Your task to perform on an android device: uninstall "Spotify: Music and Podcasts" Image 0: 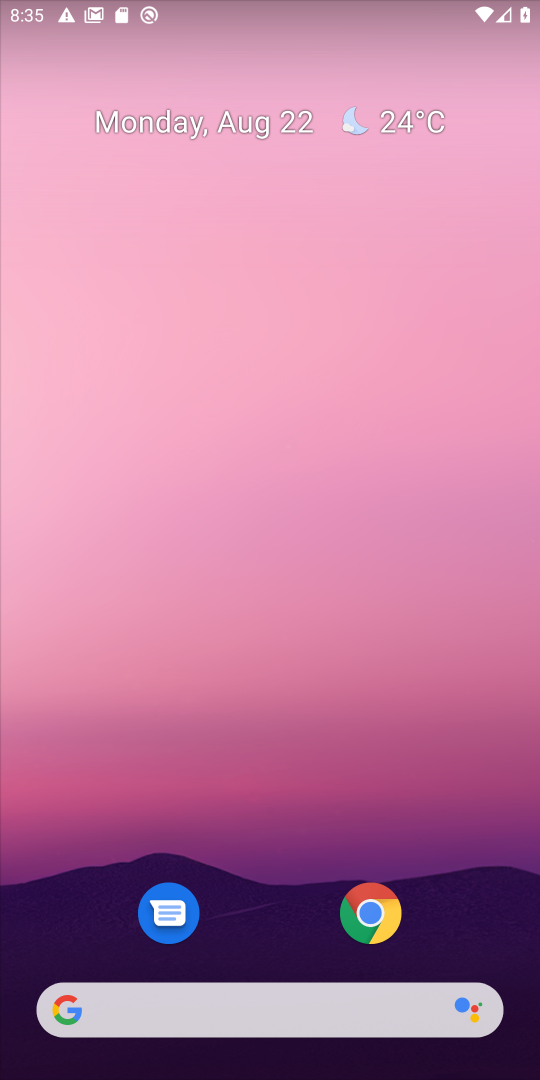
Step 0: click (372, 432)
Your task to perform on an android device: uninstall "Spotify: Music and Podcasts" Image 1: 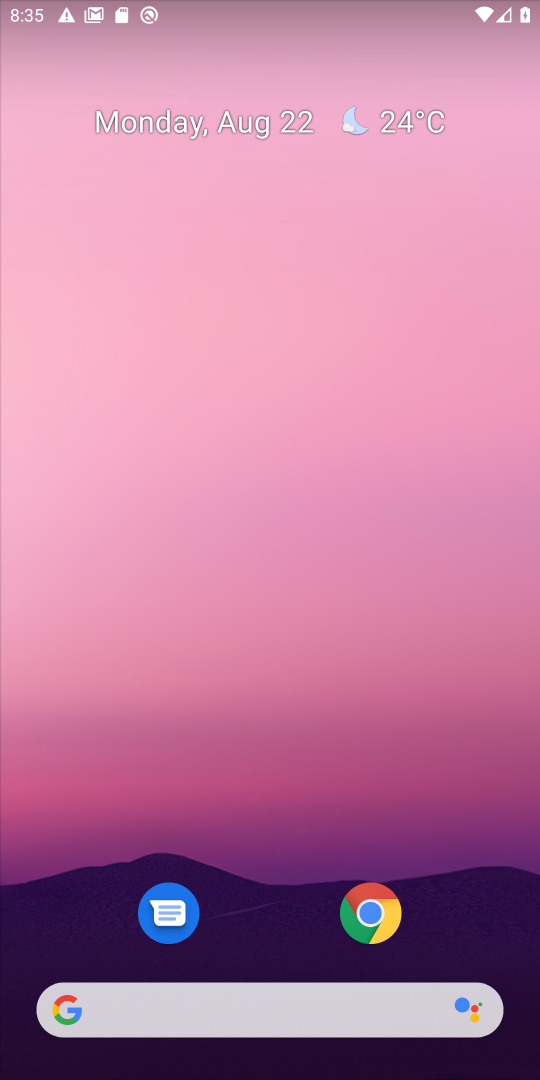
Step 1: drag from (297, 975) to (256, 115)
Your task to perform on an android device: uninstall "Spotify: Music and Podcasts" Image 2: 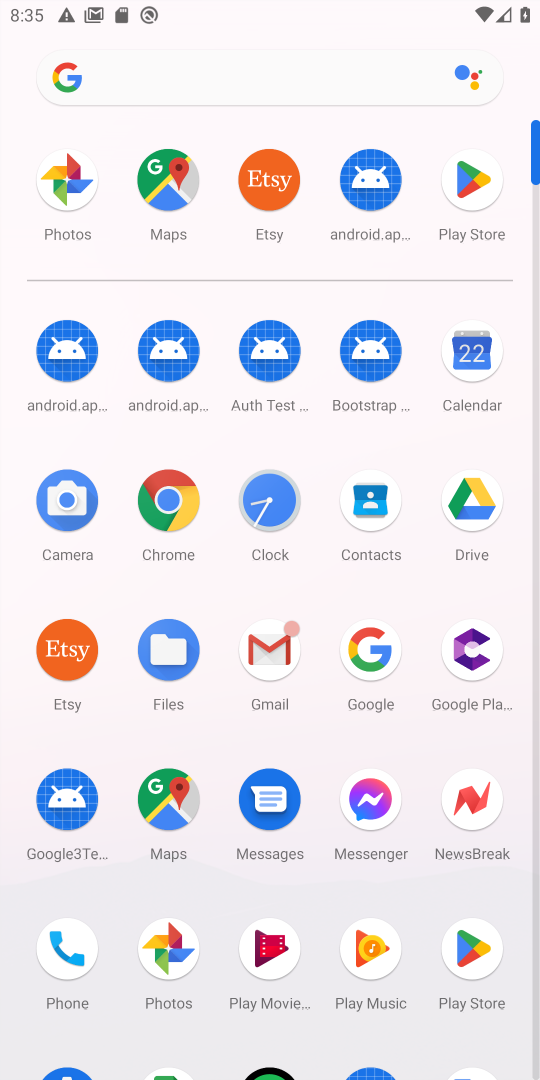
Step 2: click (452, 208)
Your task to perform on an android device: uninstall "Spotify: Music and Podcasts" Image 3: 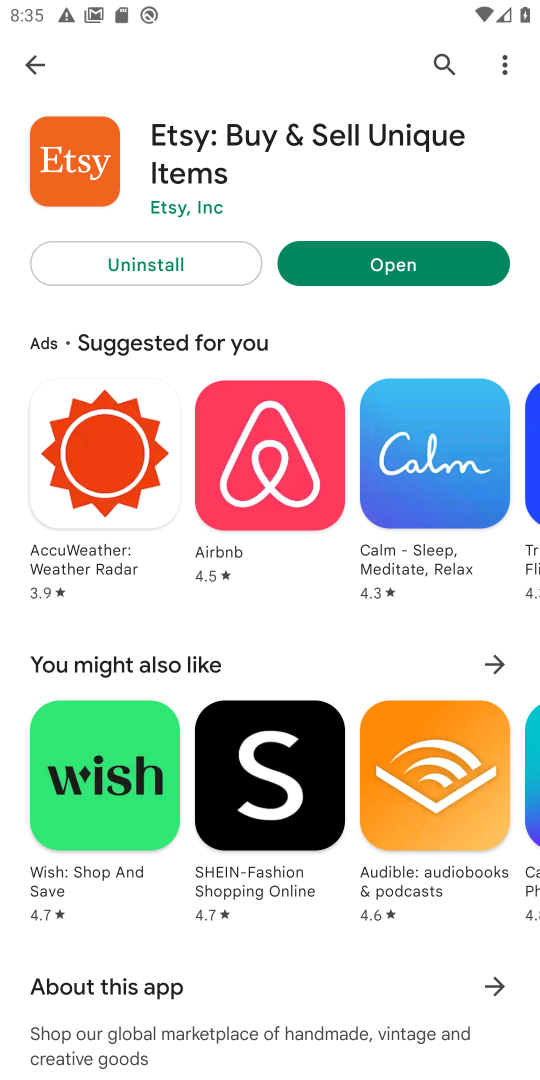
Step 3: click (442, 66)
Your task to perform on an android device: uninstall "Spotify: Music and Podcasts" Image 4: 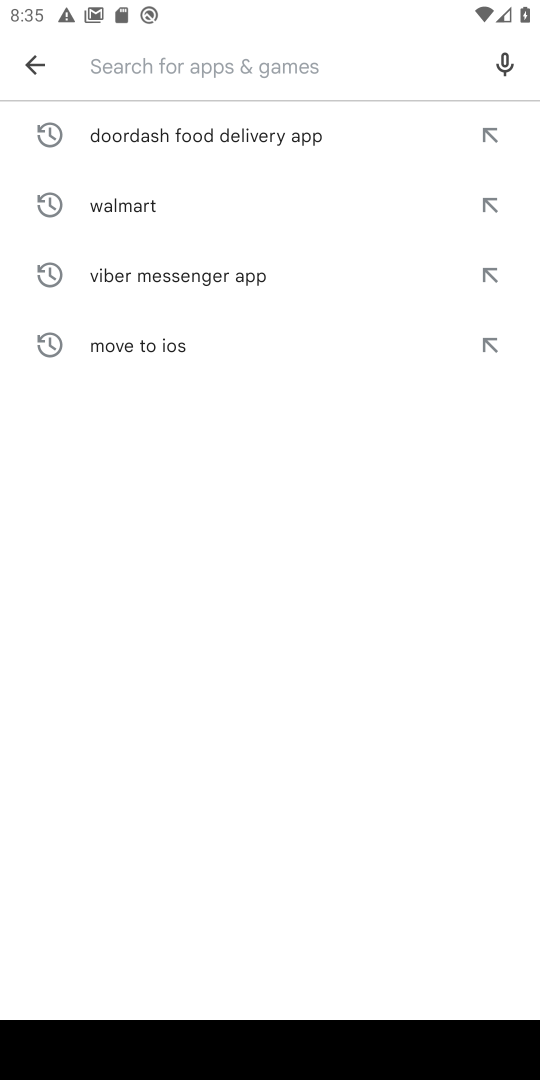
Step 4: type "spotify"
Your task to perform on an android device: uninstall "Spotify: Music and Podcasts" Image 5: 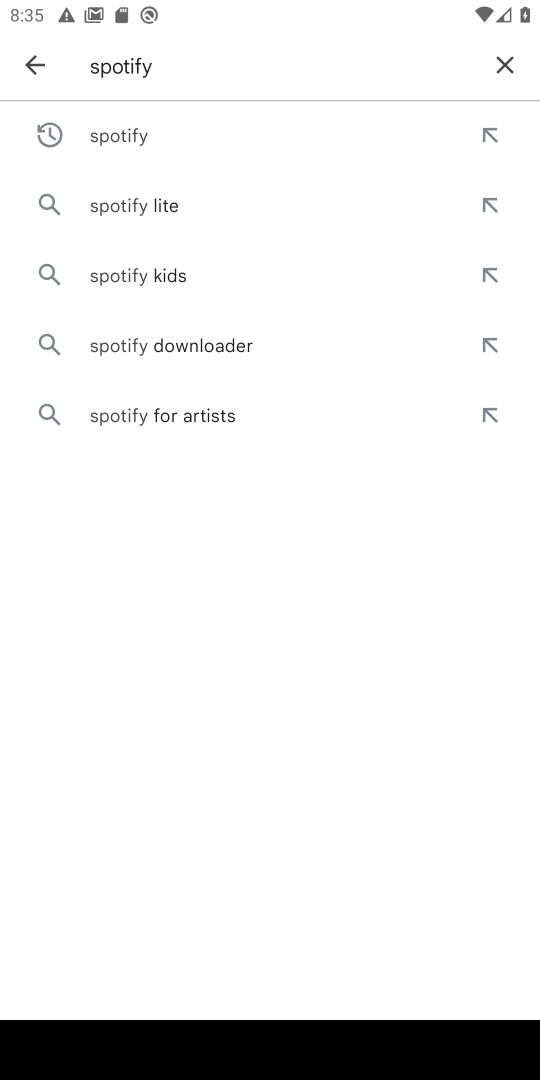
Step 5: click (159, 136)
Your task to perform on an android device: uninstall "Spotify: Music and Podcasts" Image 6: 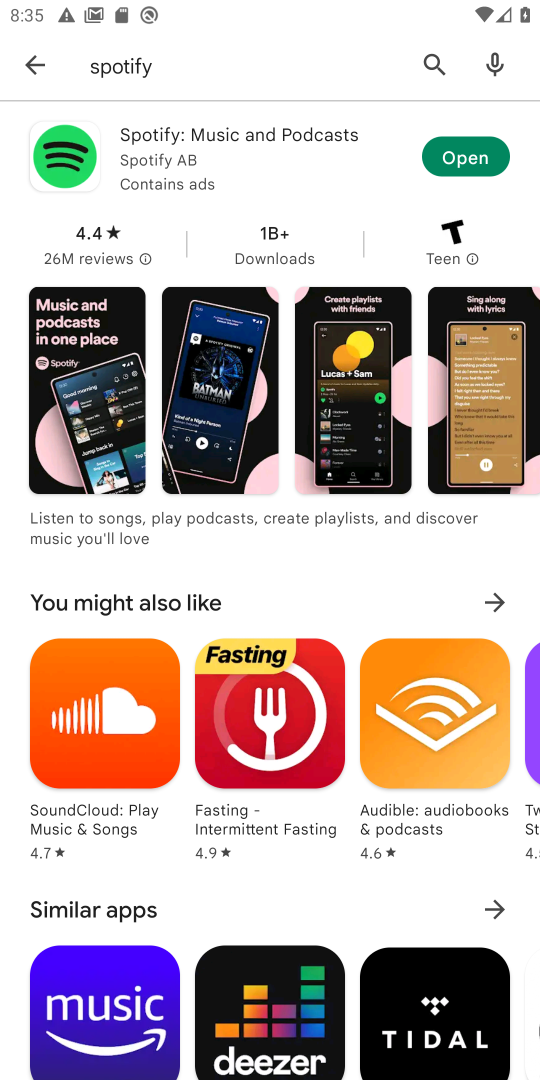
Step 6: click (192, 153)
Your task to perform on an android device: uninstall "Spotify: Music and Podcasts" Image 7: 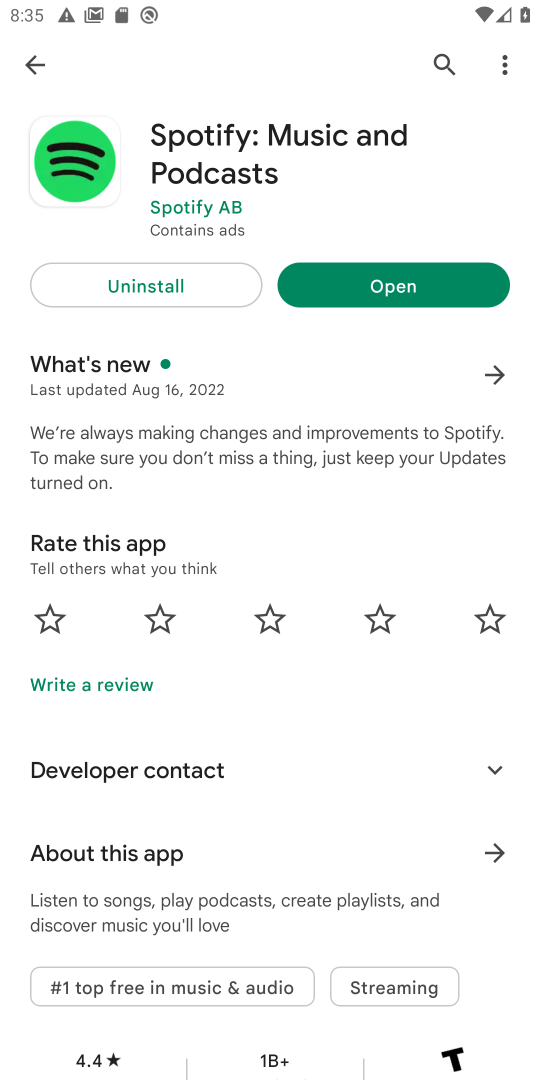
Step 7: click (181, 287)
Your task to perform on an android device: uninstall "Spotify: Music and Podcasts" Image 8: 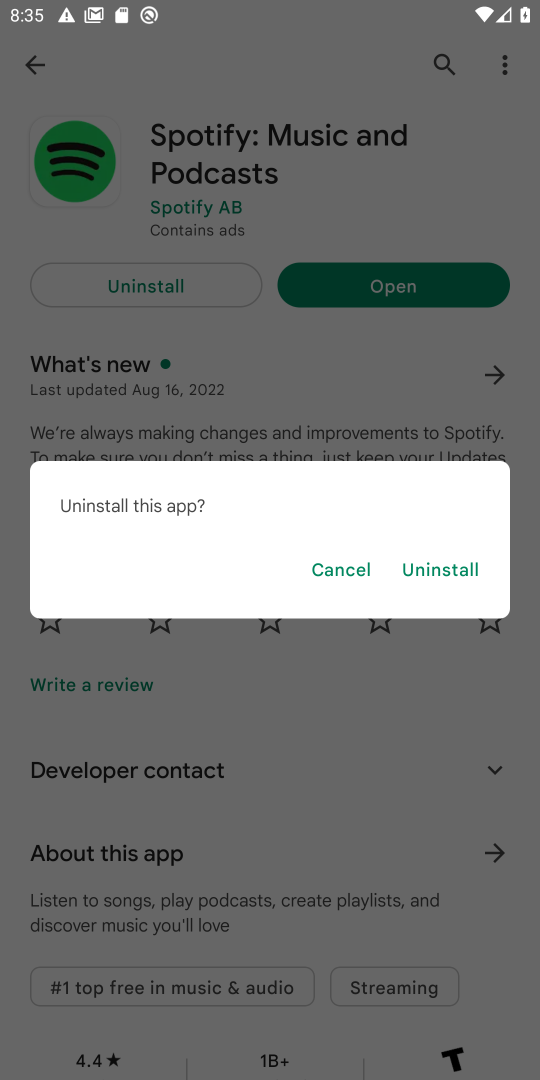
Step 8: click (460, 572)
Your task to perform on an android device: uninstall "Spotify: Music and Podcasts" Image 9: 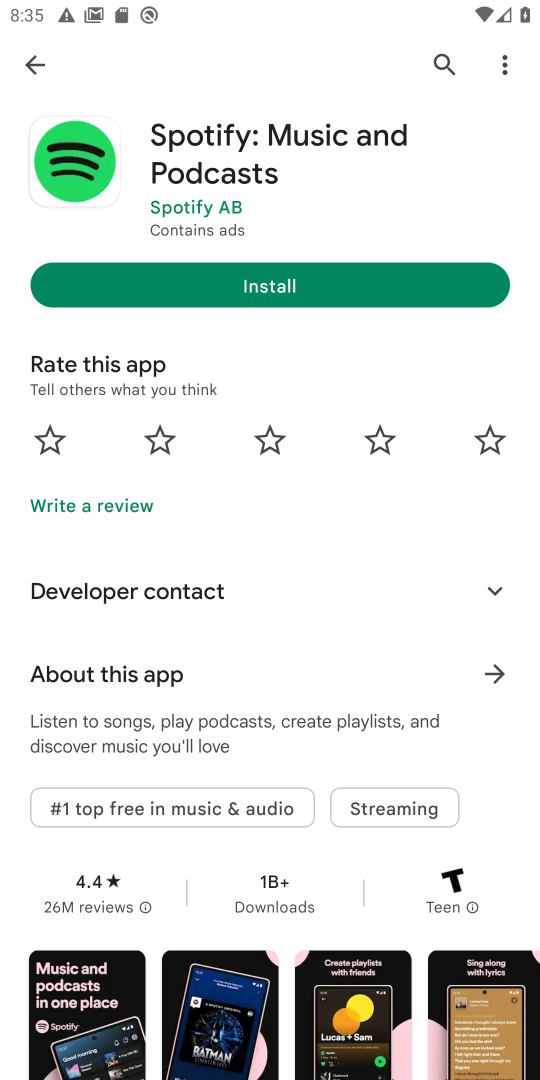
Step 9: task complete